Your task to perform on an android device: add a contact Image 0: 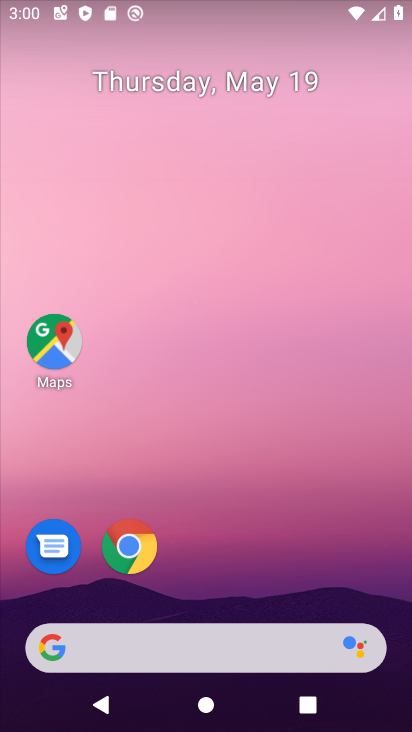
Step 0: drag from (269, 557) to (196, 192)
Your task to perform on an android device: add a contact Image 1: 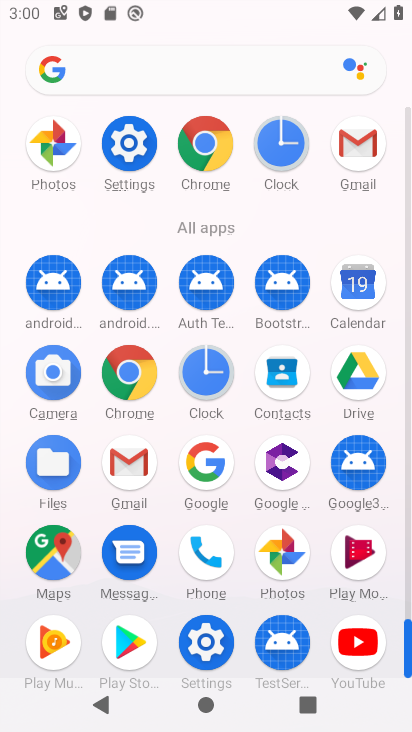
Step 1: click (282, 371)
Your task to perform on an android device: add a contact Image 2: 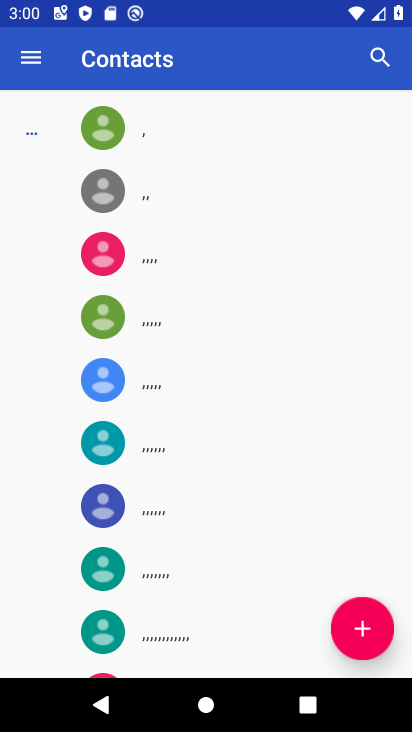
Step 2: click (362, 627)
Your task to perform on an android device: add a contact Image 3: 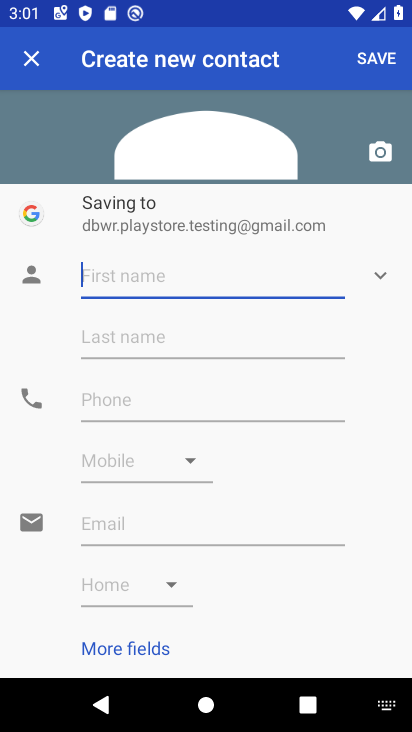
Step 3: click (147, 276)
Your task to perform on an android device: add a contact Image 4: 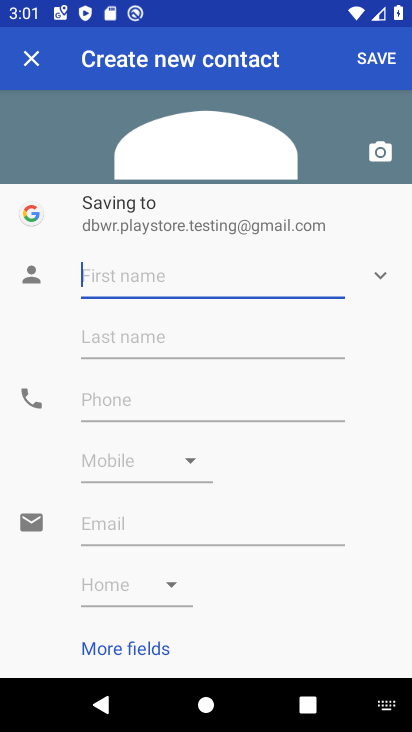
Step 4: type "Navjot Singh"
Your task to perform on an android device: add a contact Image 5: 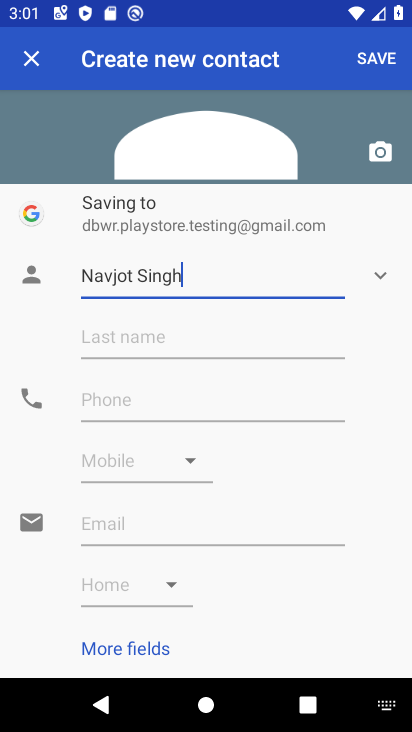
Step 5: click (323, 339)
Your task to perform on an android device: add a contact Image 6: 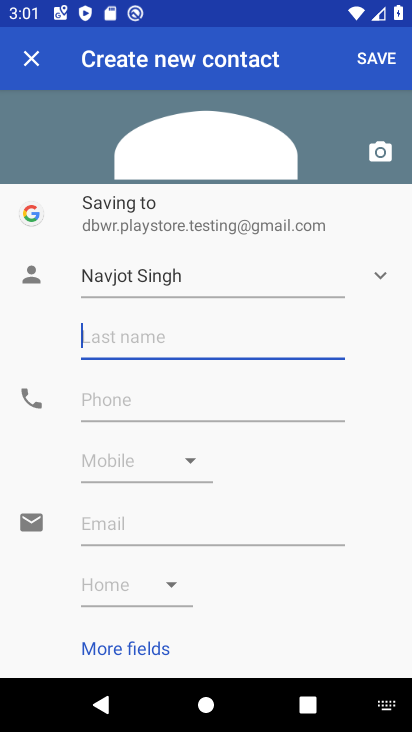
Step 6: type "Siddhu"
Your task to perform on an android device: add a contact Image 7: 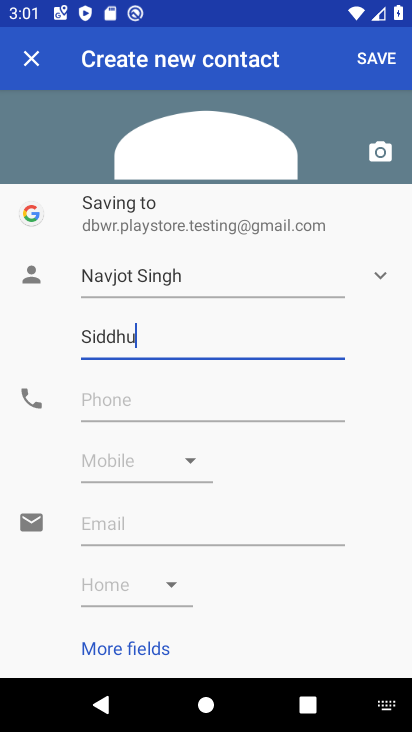
Step 7: click (226, 398)
Your task to perform on an android device: add a contact Image 8: 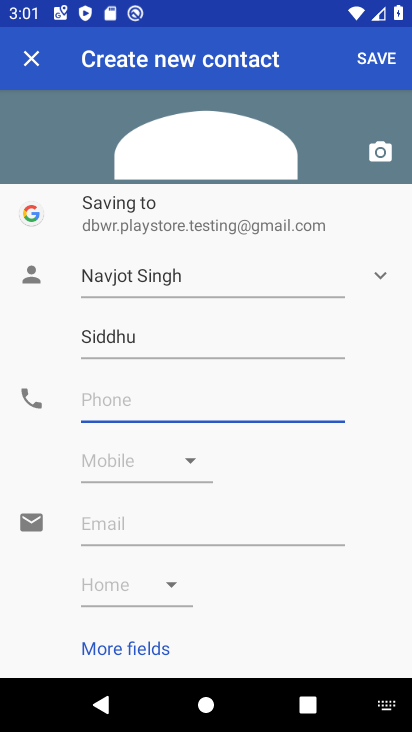
Step 8: type "0999666432"
Your task to perform on an android device: add a contact Image 9: 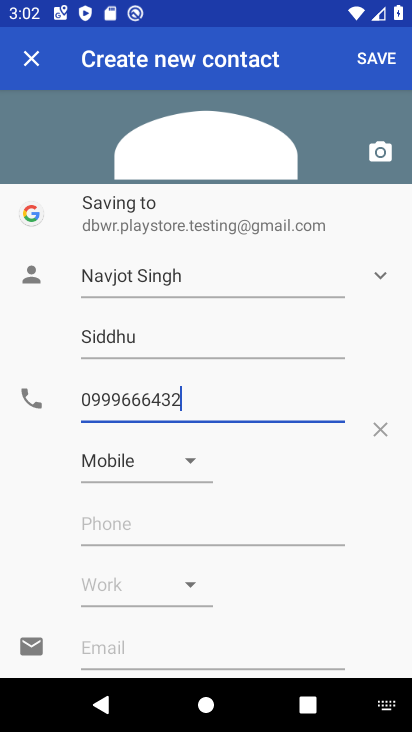
Step 9: click (377, 61)
Your task to perform on an android device: add a contact Image 10: 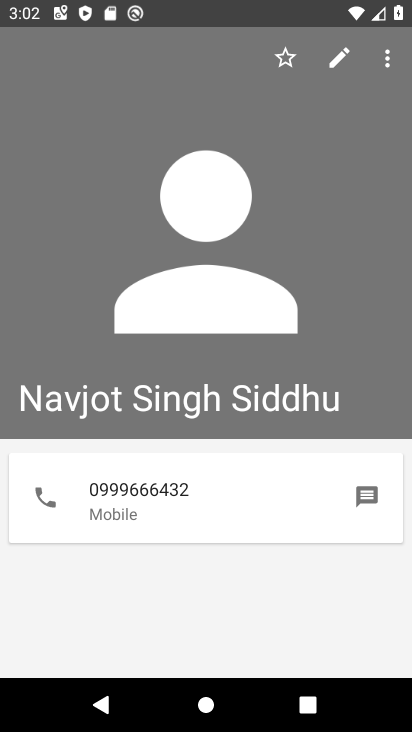
Step 10: task complete